Your task to perform on an android device: Search for flights from Tokyo to Mexico city Image 0: 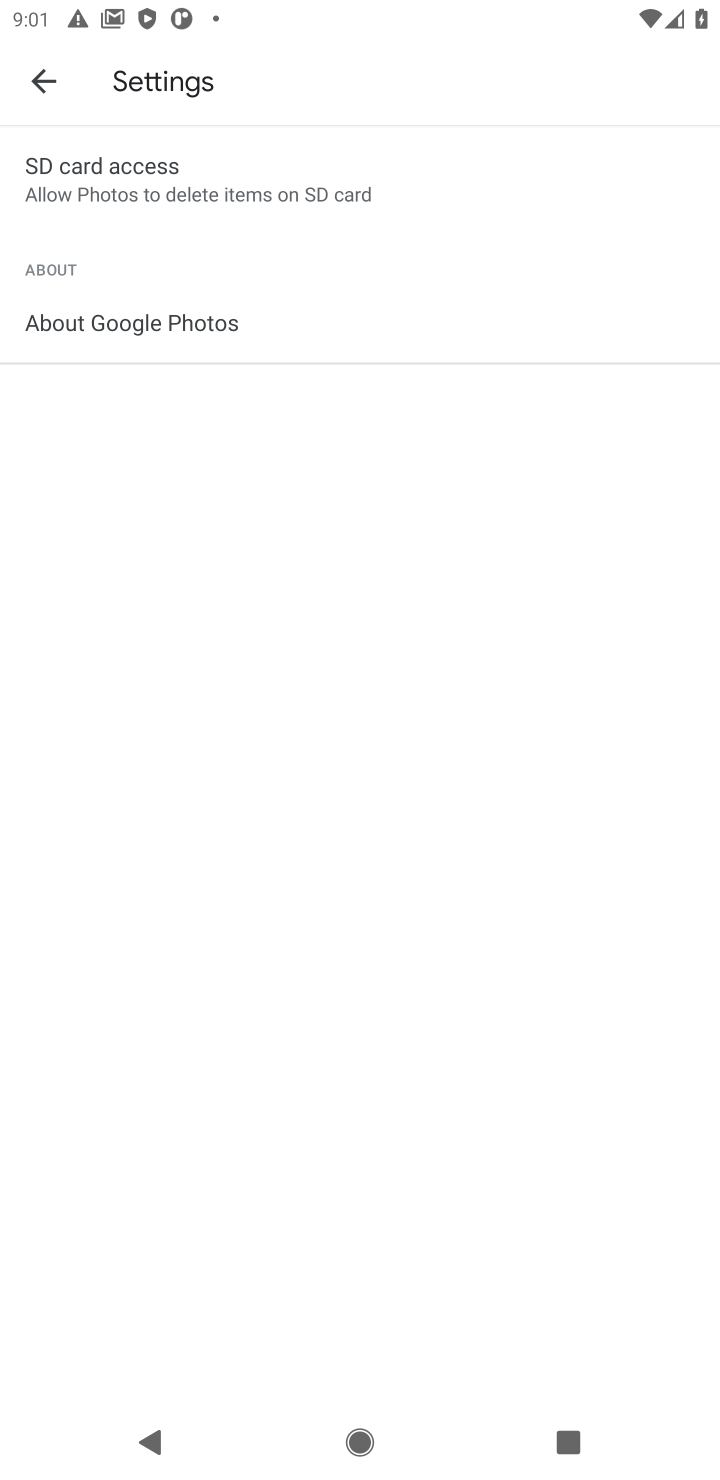
Step 0: press home button
Your task to perform on an android device: Search for flights from Tokyo to Mexico city Image 1: 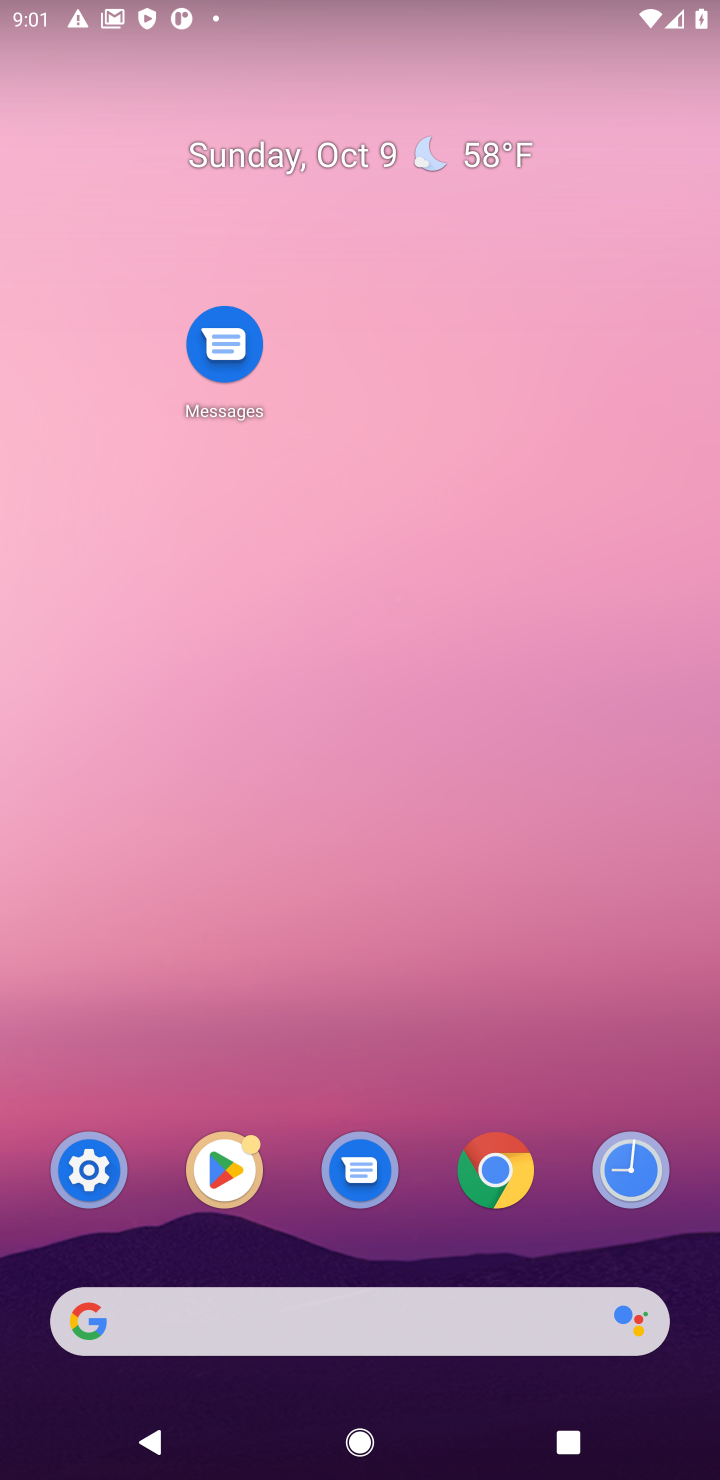
Step 1: drag from (378, 44) to (154, 95)
Your task to perform on an android device: Search for flights from Tokyo to Mexico city Image 2: 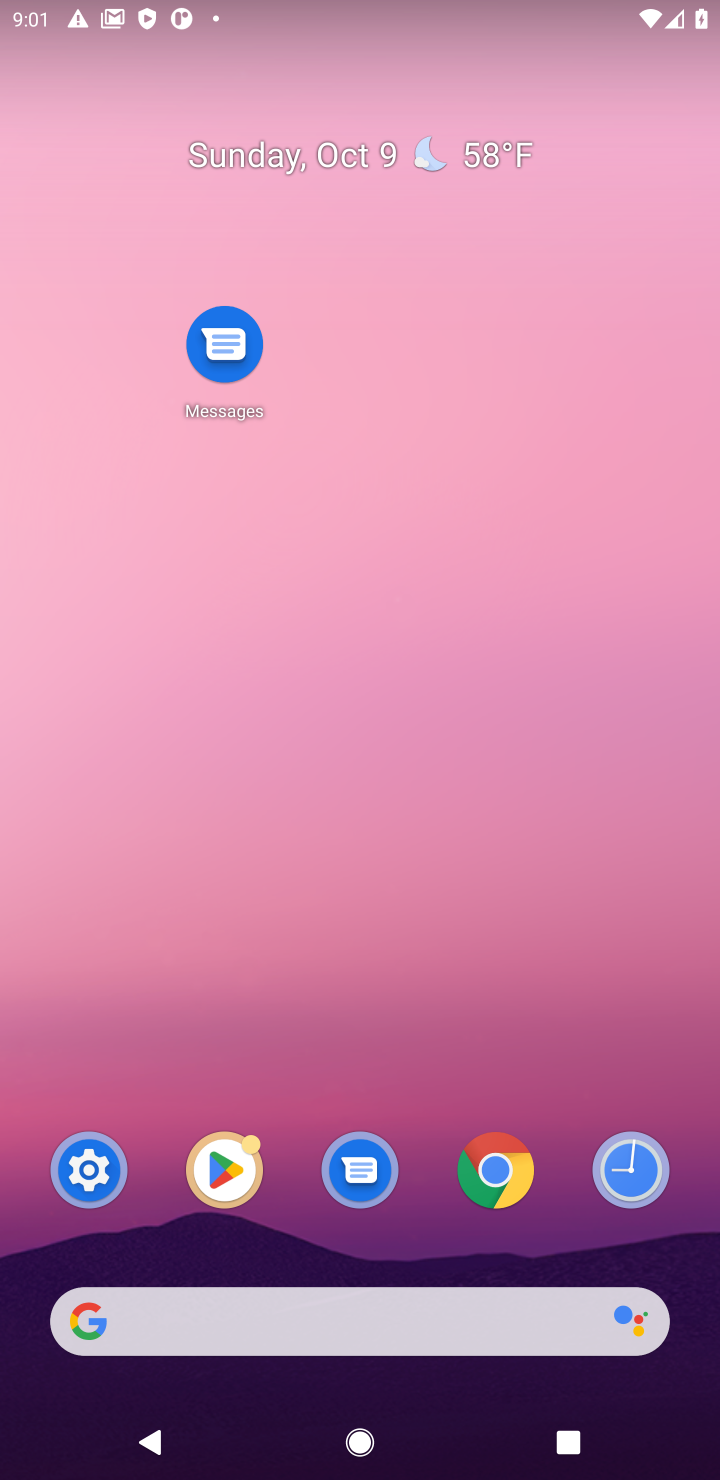
Step 2: click (320, 1331)
Your task to perform on an android device: Search for flights from Tokyo to Mexico city Image 3: 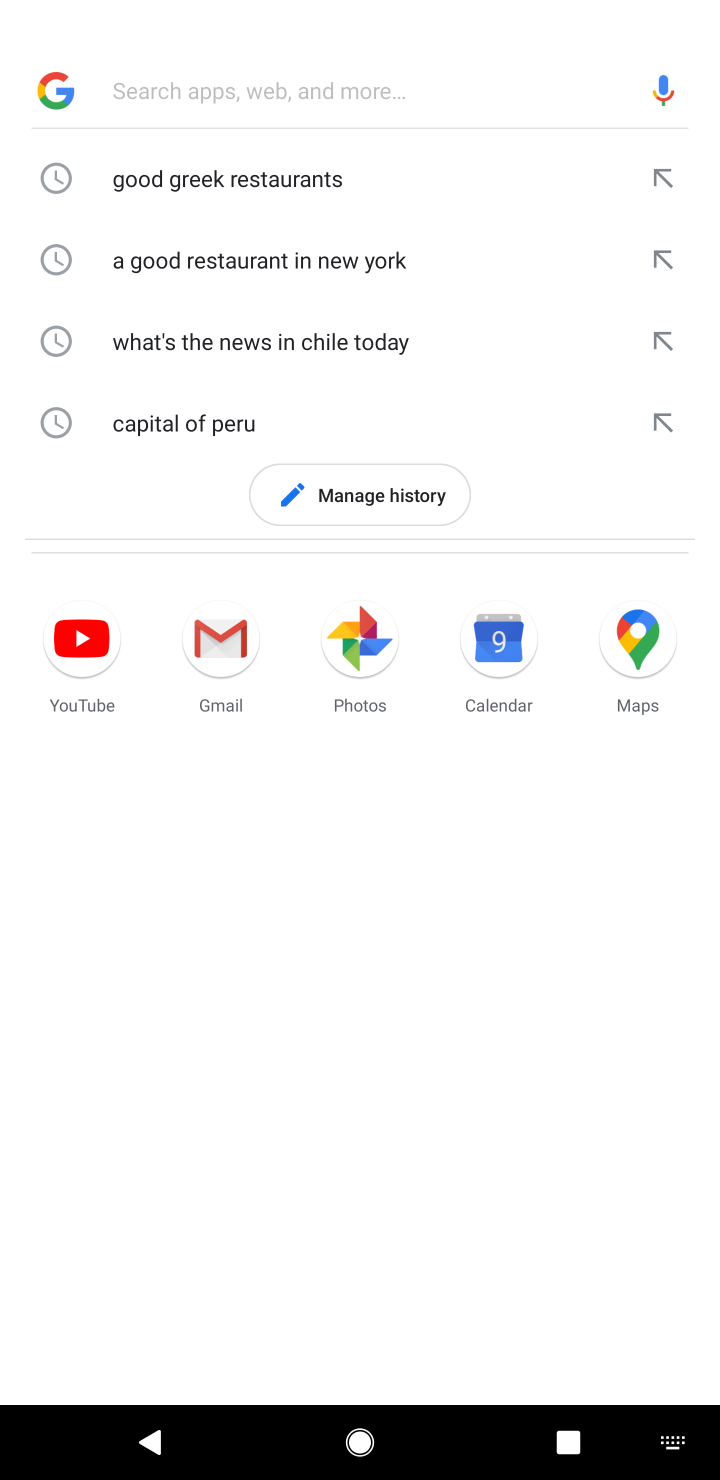
Step 3: type "Search for flights from Tokyo to Mexico city"
Your task to perform on an android device: Search for flights from Tokyo to Mexico city Image 4: 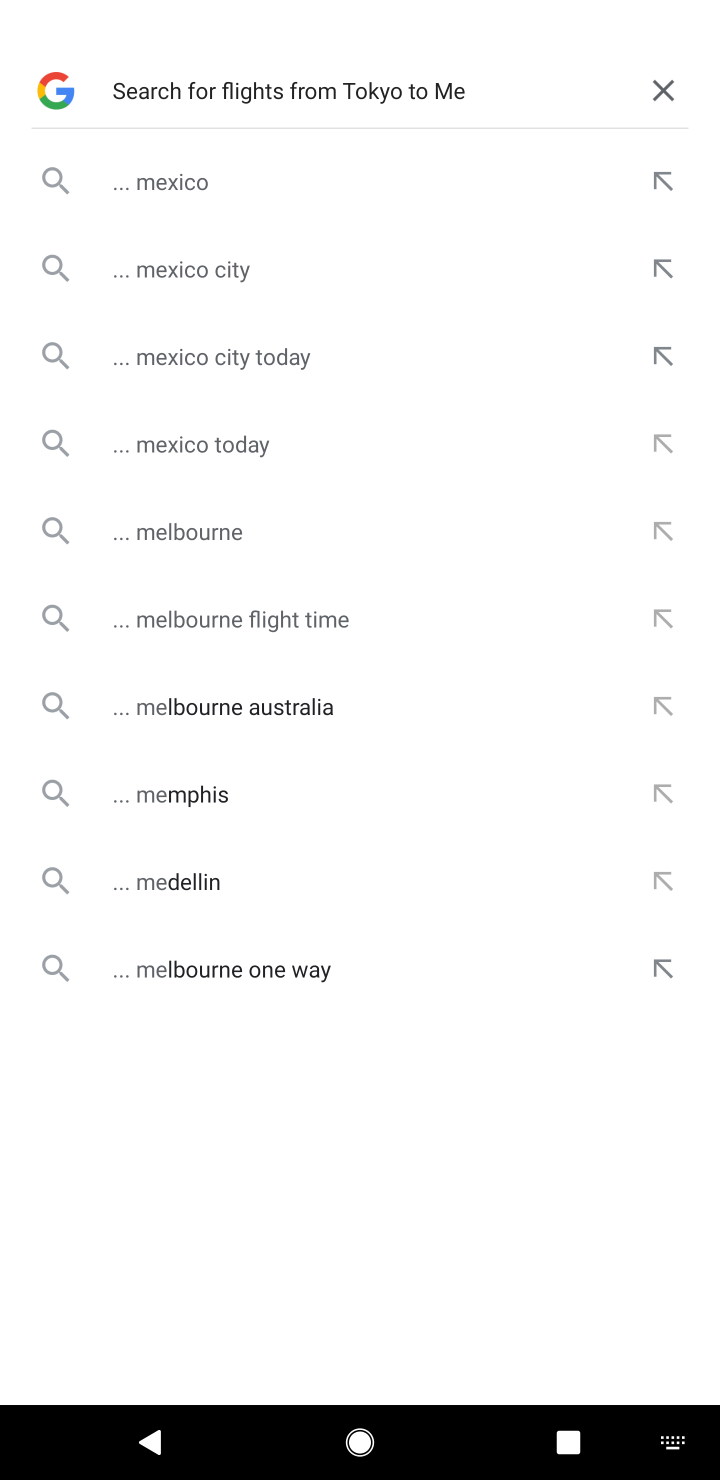
Step 4: click (217, 180)
Your task to perform on an android device: Search for flights from Tokyo to Mexico city Image 5: 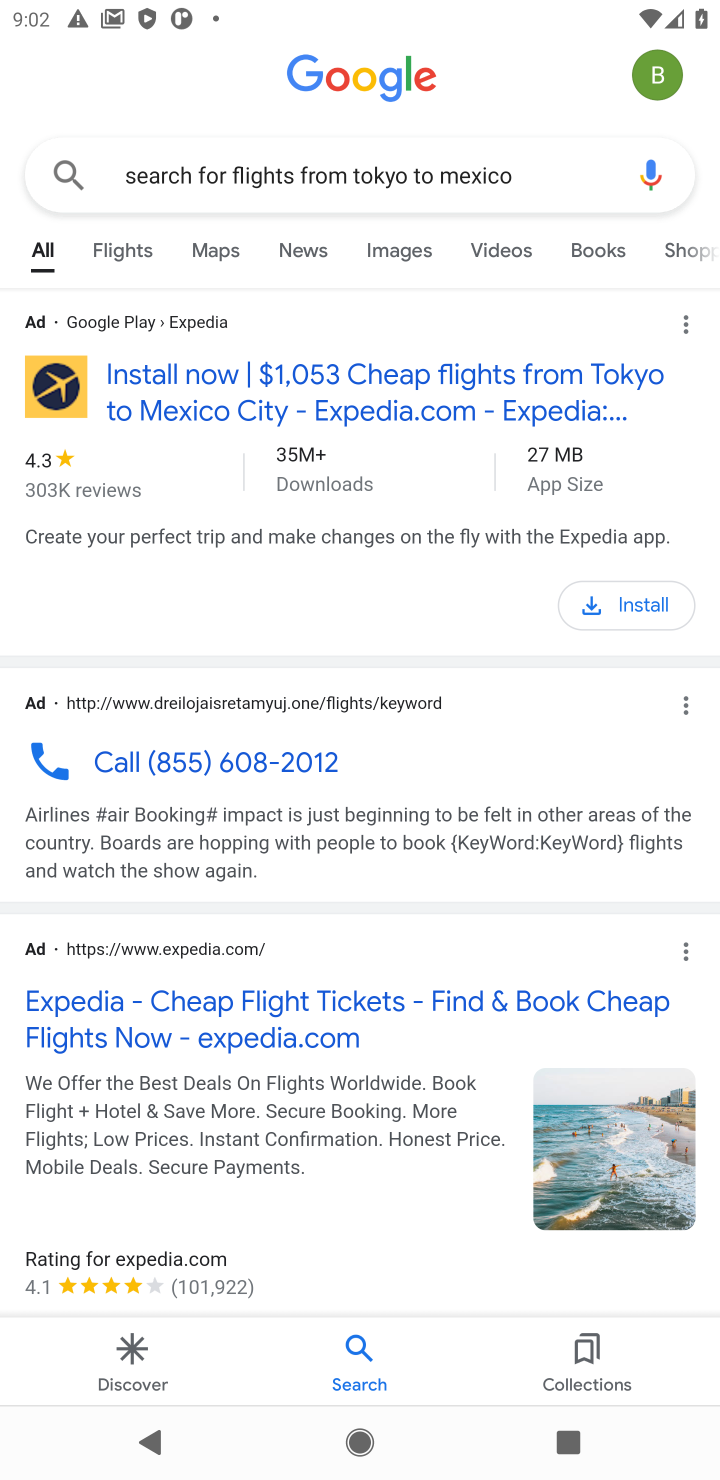
Step 5: drag from (396, 1142) to (389, 598)
Your task to perform on an android device: Search for flights from Tokyo to Mexico city Image 6: 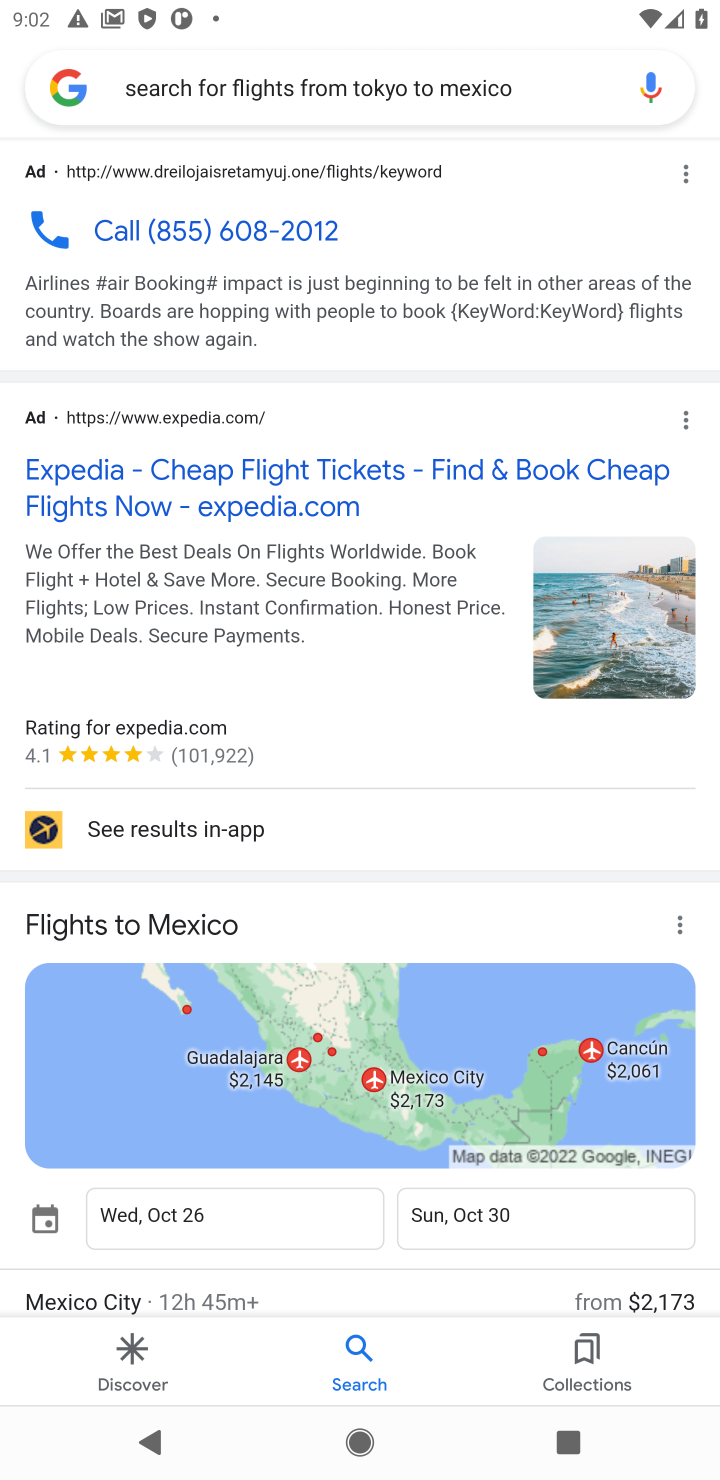
Step 6: click (294, 498)
Your task to perform on an android device: Search for flights from Tokyo to Mexico city Image 7: 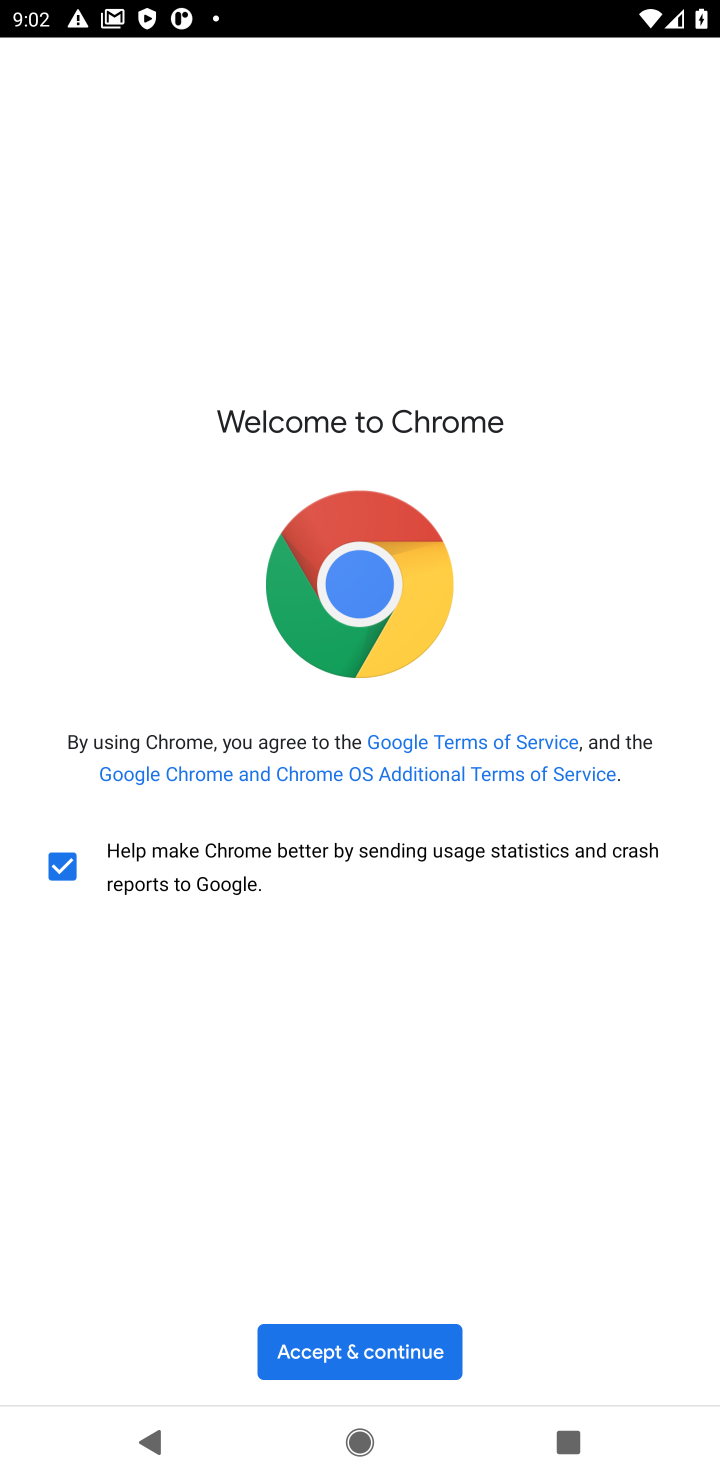
Step 7: click (379, 1355)
Your task to perform on an android device: Search for flights from Tokyo to Mexico city Image 8: 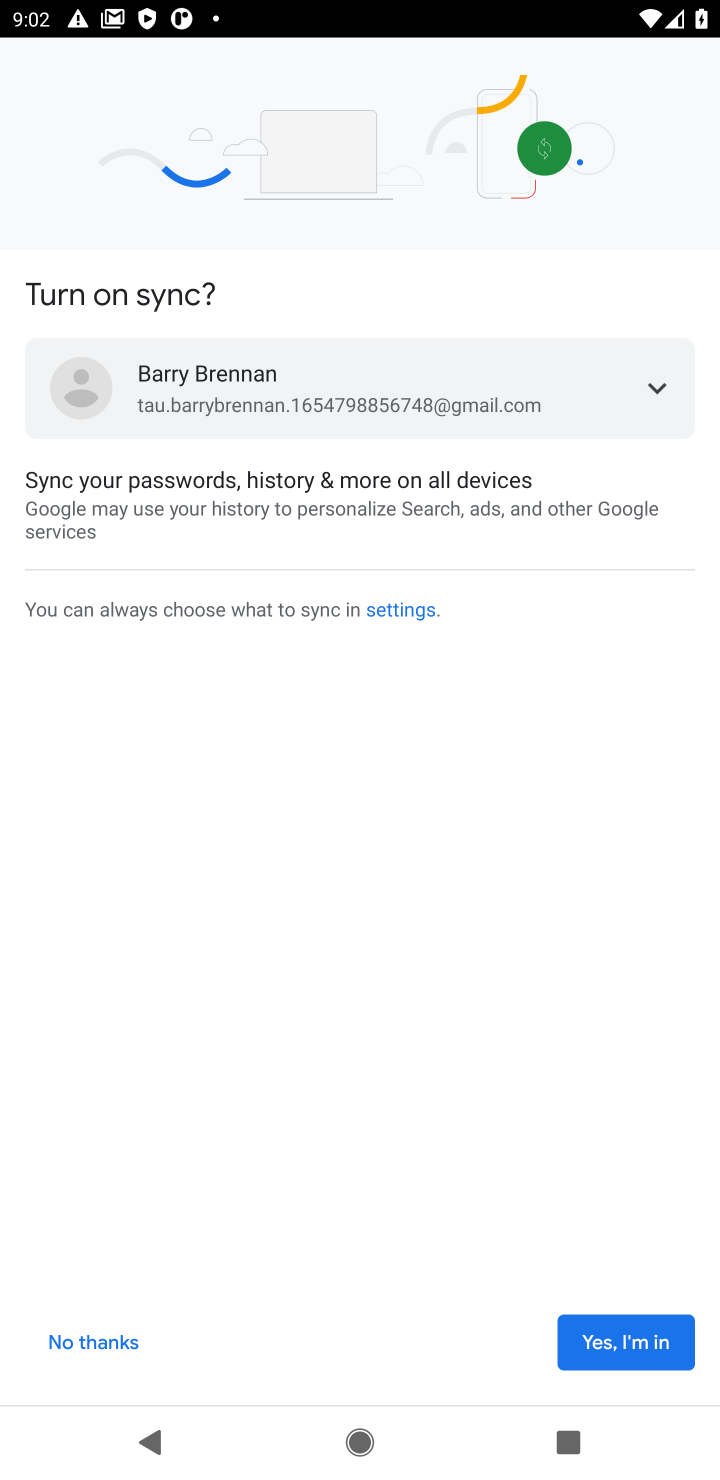
Step 8: click (645, 1351)
Your task to perform on an android device: Search for flights from Tokyo to Mexico city Image 9: 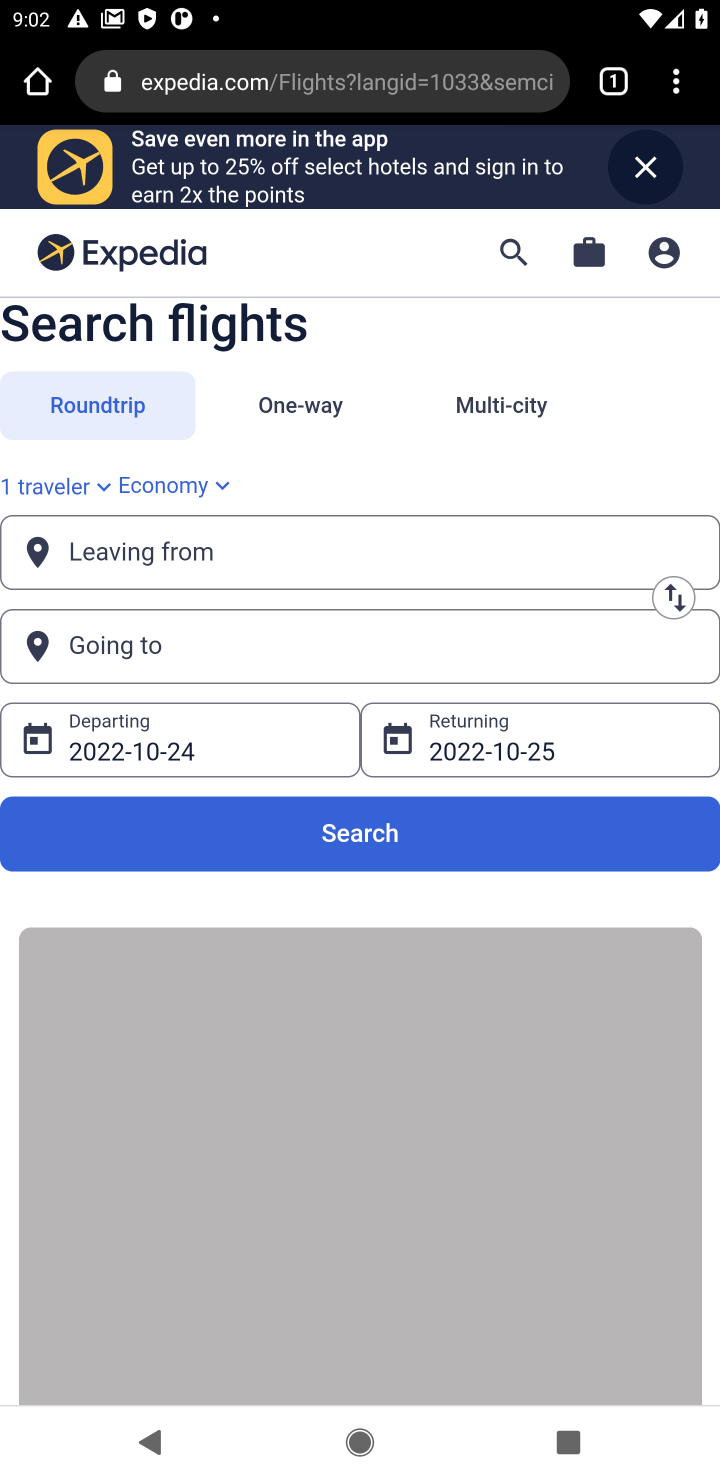
Step 9: task complete